Your task to perform on an android device: Is it going to rain this weekend? Image 0: 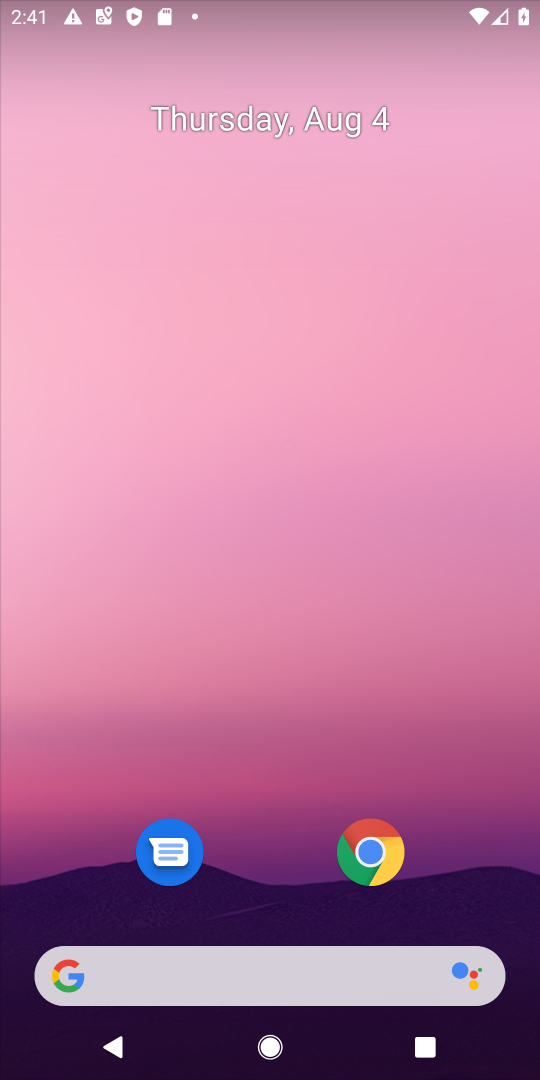
Step 0: click (193, 968)
Your task to perform on an android device: Is it going to rain this weekend? Image 1: 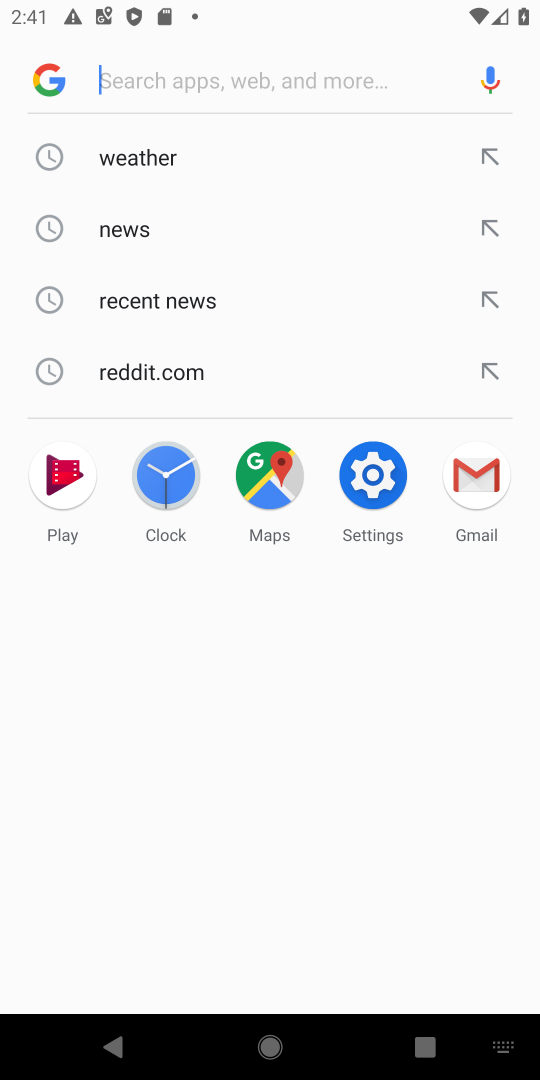
Step 1: click (156, 167)
Your task to perform on an android device: Is it going to rain this weekend? Image 2: 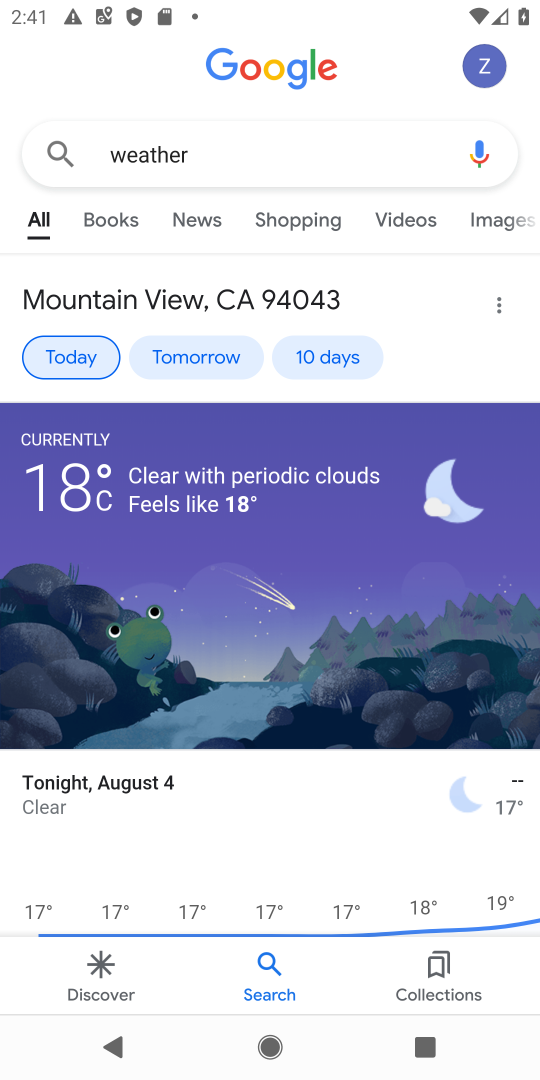
Step 2: click (339, 347)
Your task to perform on an android device: Is it going to rain this weekend? Image 3: 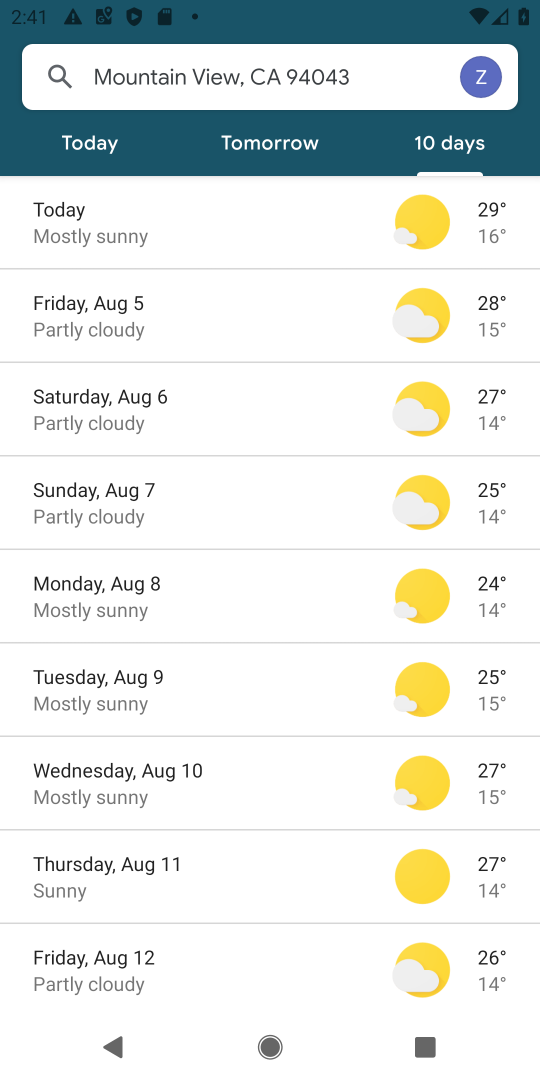
Step 3: task complete